Your task to perform on an android device: Open Wikipedia Image 0: 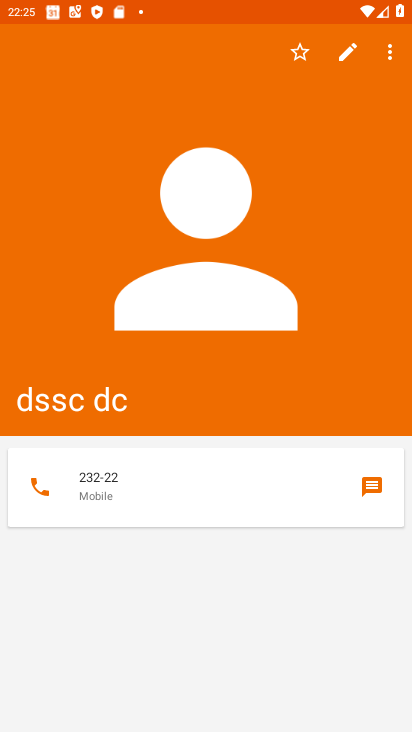
Step 0: press home button
Your task to perform on an android device: Open Wikipedia Image 1: 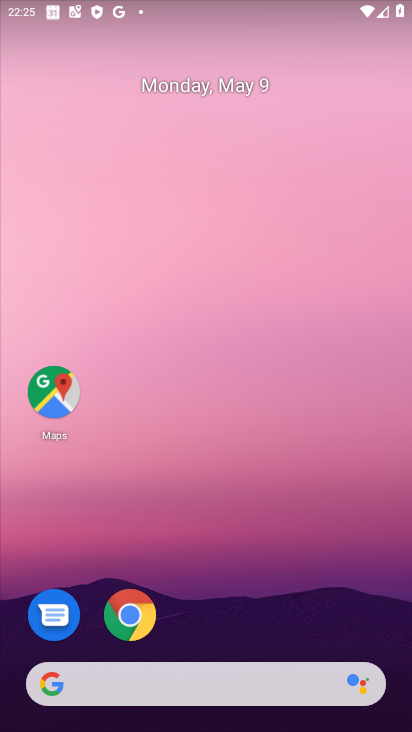
Step 1: click (125, 618)
Your task to perform on an android device: Open Wikipedia Image 2: 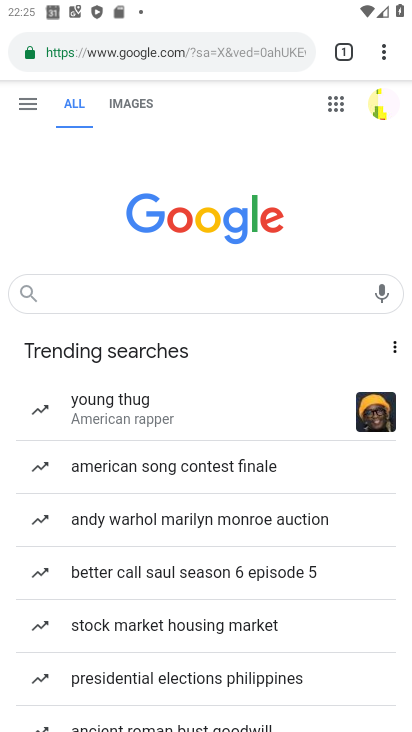
Step 2: click (120, 57)
Your task to perform on an android device: Open Wikipedia Image 3: 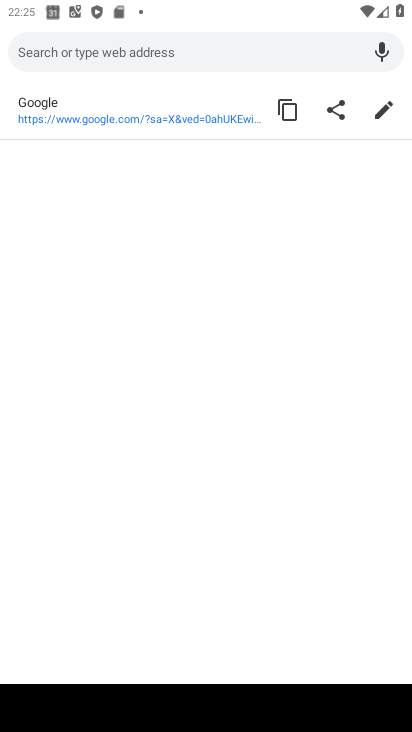
Step 3: type "wikipedia"
Your task to perform on an android device: Open Wikipedia Image 4: 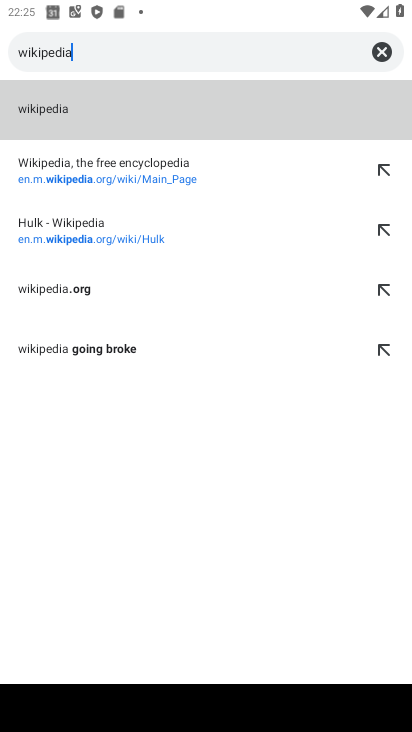
Step 4: click (210, 141)
Your task to perform on an android device: Open Wikipedia Image 5: 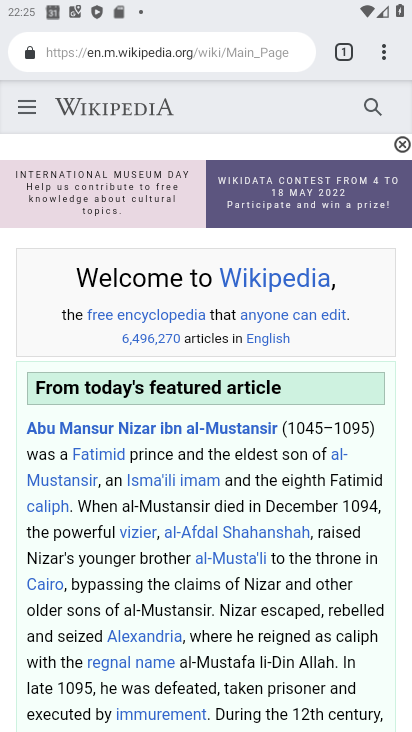
Step 5: task complete